Your task to perform on an android device: toggle notification dots Image 0: 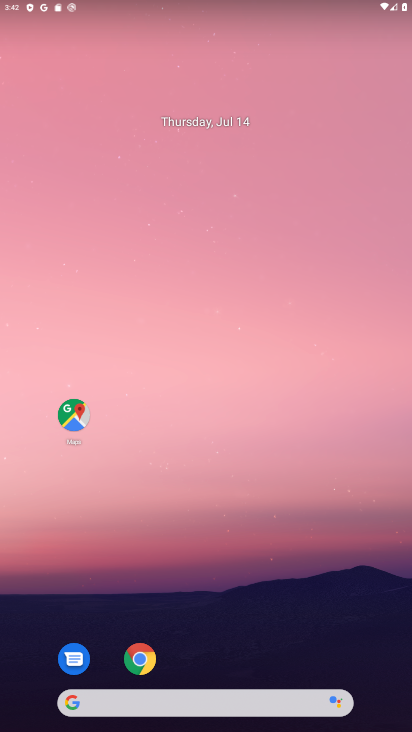
Step 0: drag from (322, 608) to (345, 153)
Your task to perform on an android device: toggle notification dots Image 1: 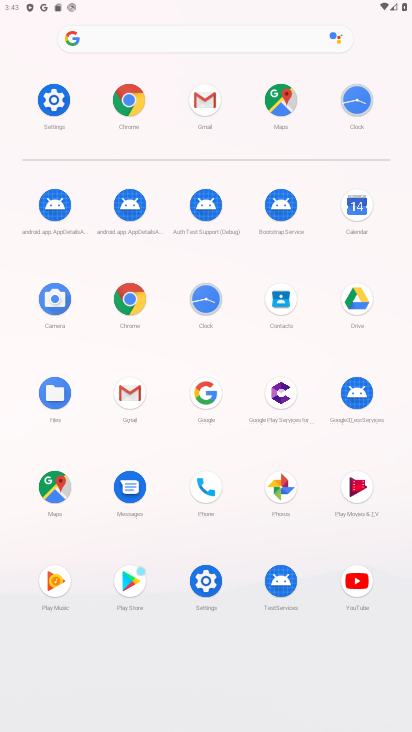
Step 1: click (202, 578)
Your task to perform on an android device: toggle notification dots Image 2: 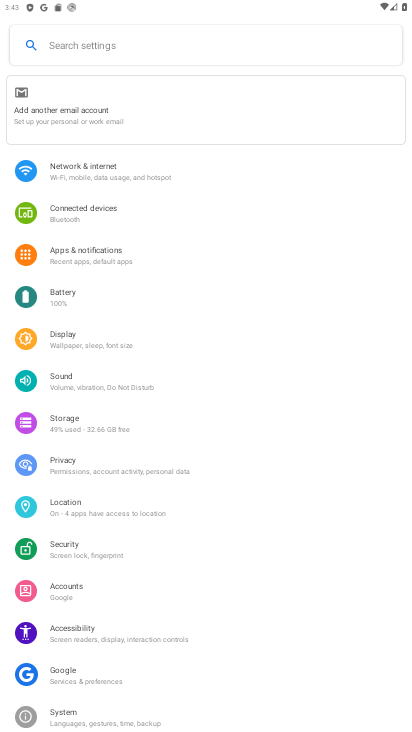
Step 2: click (150, 259)
Your task to perform on an android device: toggle notification dots Image 3: 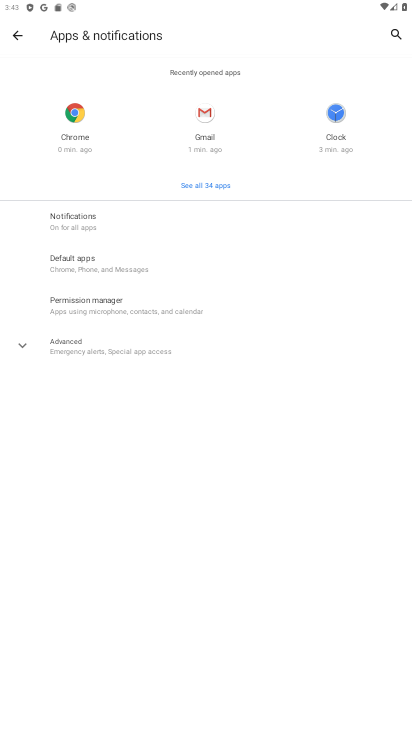
Step 3: click (131, 229)
Your task to perform on an android device: toggle notification dots Image 4: 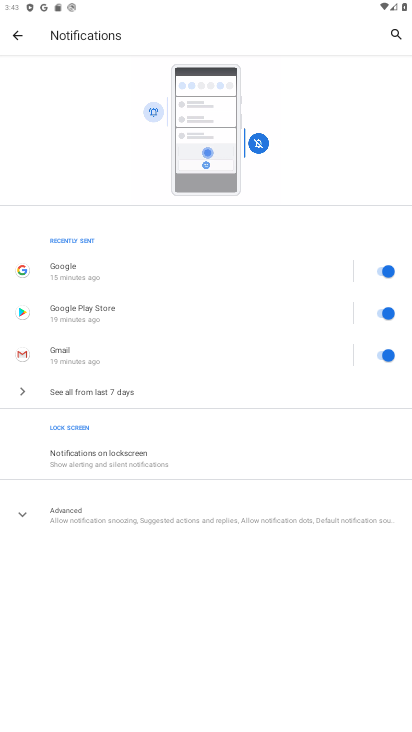
Step 4: click (215, 512)
Your task to perform on an android device: toggle notification dots Image 5: 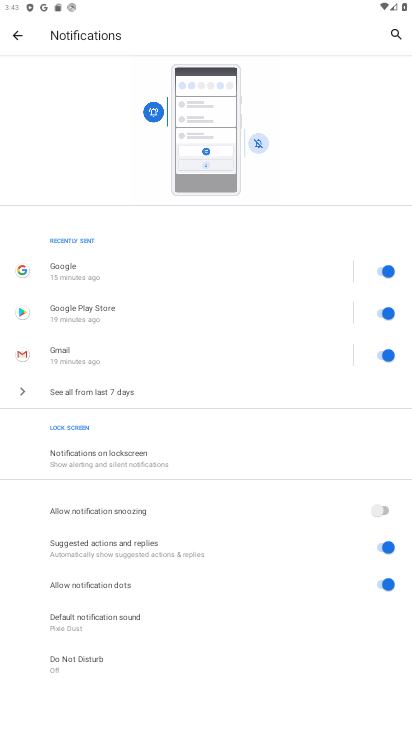
Step 5: drag from (226, 543) to (230, 449)
Your task to perform on an android device: toggle notification dots Image 6: 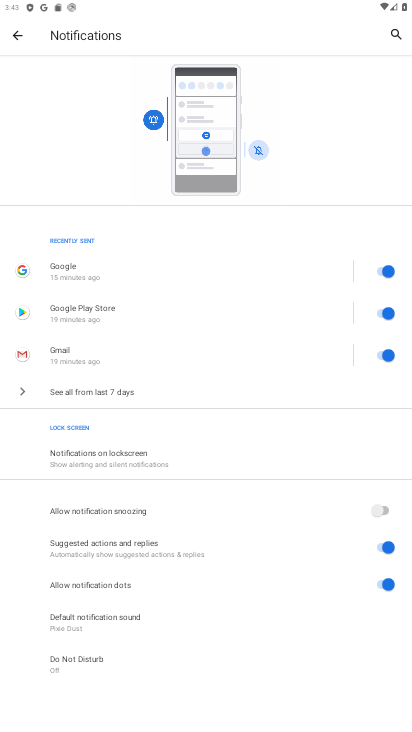
Step 6: click (378, 587)
Your task to perform on an android device: toggle notification dots Image 7: 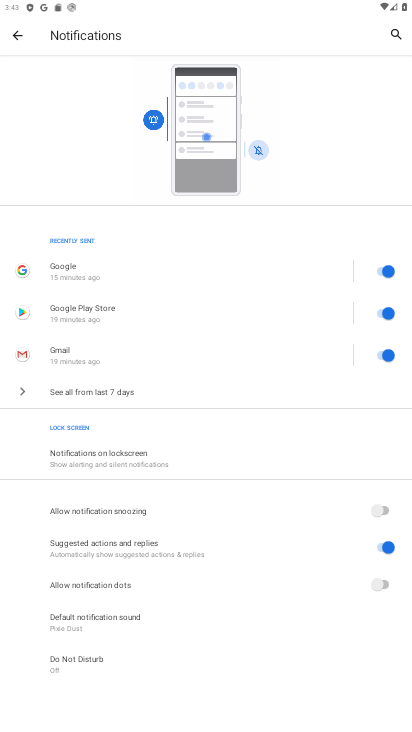
Step 7: task complete